Your task to perform on an android device: Open Google Maps Image 0: 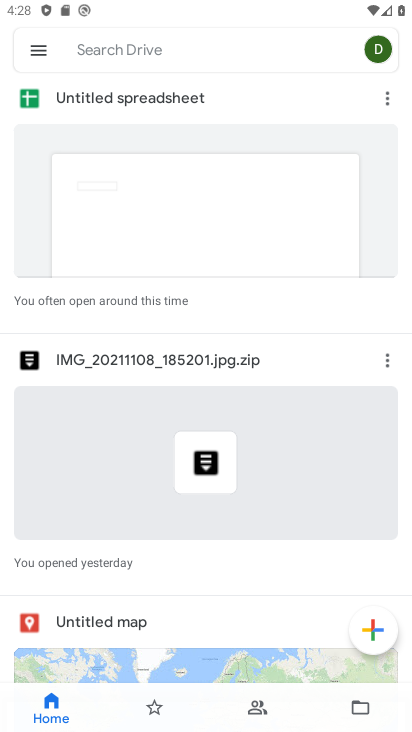
Step 0: press home button
Your task to perform on an android device: Open Google Maps Image 1: 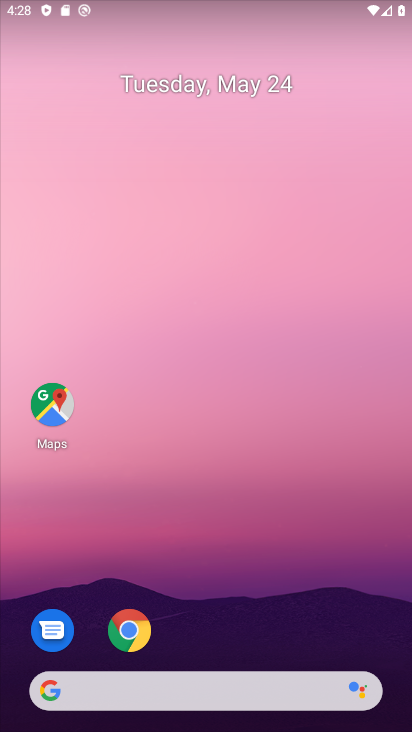
Step 1: click (131, 637)
Your task to perform on an android device: Open Google Maps Image 2: 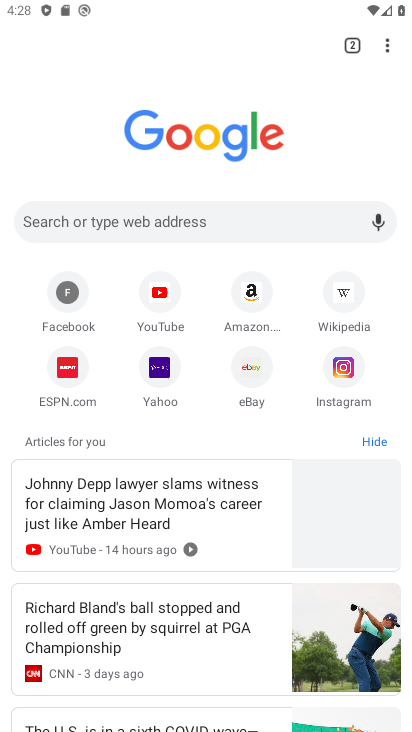
Step 2: press home button
Your task to perform on an android device: Open Google Maps Image 3: 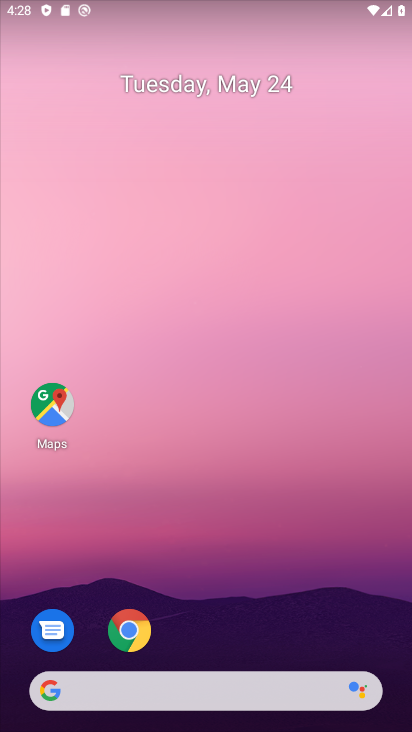
Step 3: click (43, 420)
Your task to perform on an android device: Open Google Maps Image 4: 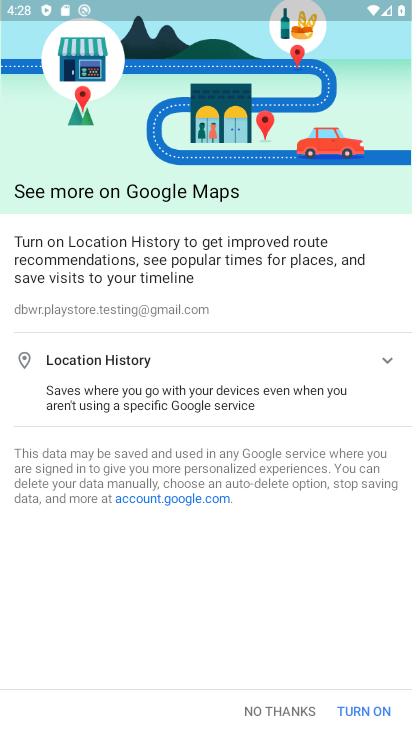
Step 4: task complete